Your task to perform on an android device: Open Chrome and go to the settings page Image 0: 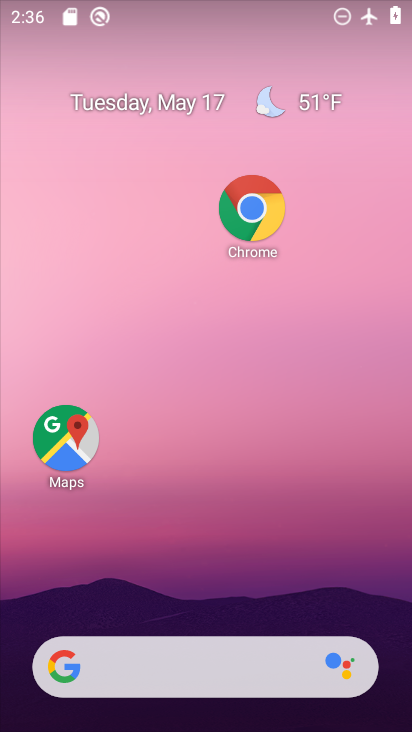
Step 0: click (246, 226)
Your task to perform on an android device: Open Chrome and go to the settings page Image 1: 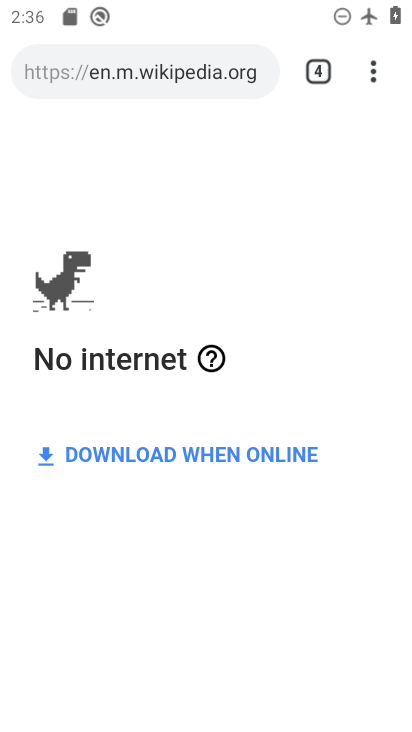
Step 1: task complete